Your task to perform on an android device: toggle notifications settings in the gmail app Image 0: 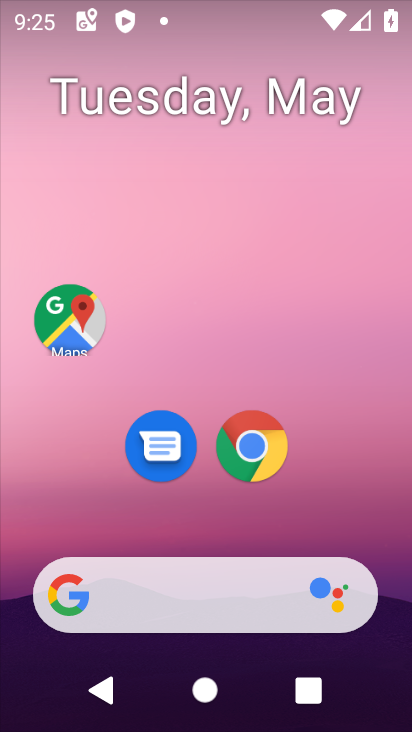
Step 0: drag from (227, 607) to (221, 204)
Your task to perform on an android device: toggle notifications settings in the gmail app Image 1: 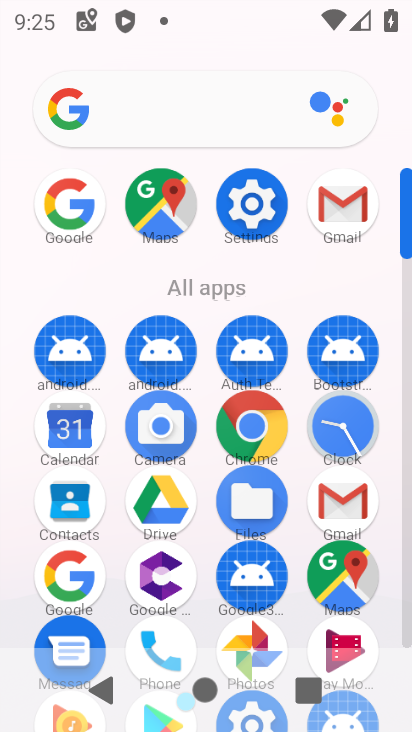
Step 1: click (339, 202)
Your task to perform on an android device: toggle notifications settings in the gmail app Image 2: 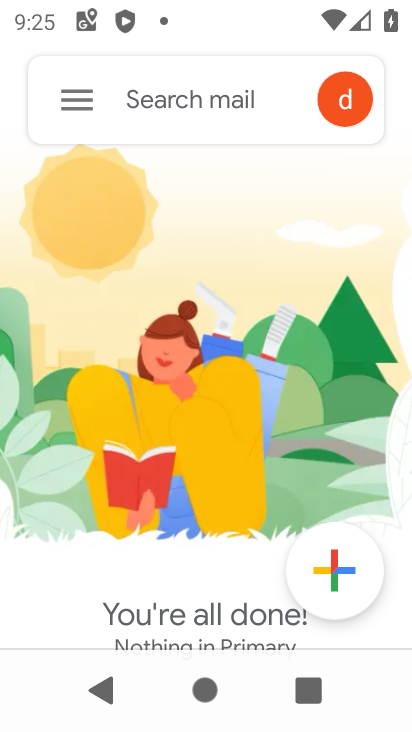
Step 2: click (68, 97)
Your task to perform on an android device: toggle notifications settings in the gmail app Image 3: 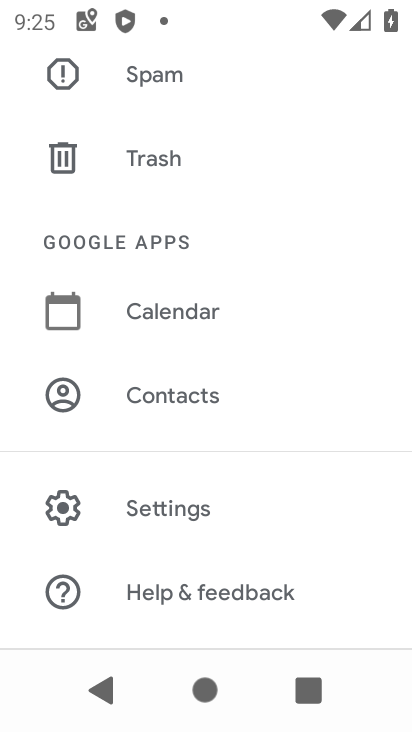
Step 3: click (165, 500)
Your task to perform on an android device: toggle notifications settings in the gmail app Image 4: 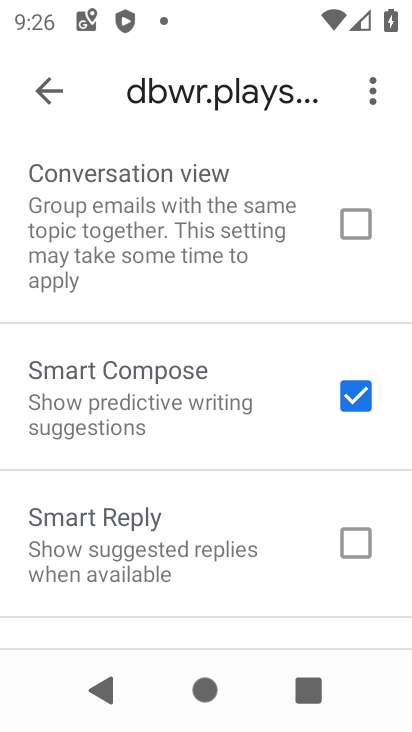
Step 4: drag from (157, 516) to (141, 133)
Your task to perform on an android device: toggle notifications settings in the gmail app Image 5: 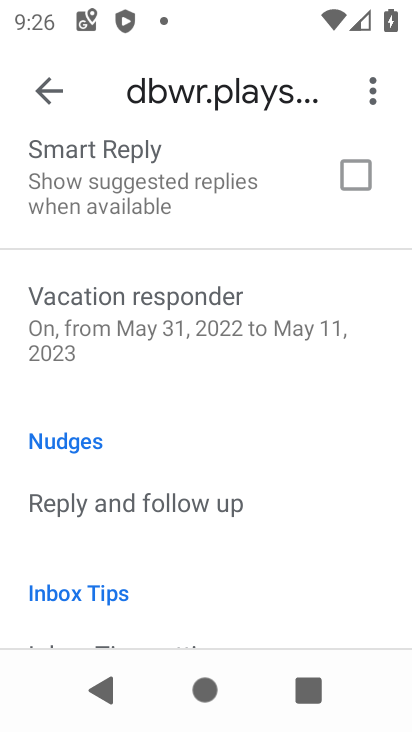
Step 5: drag from (178, 419) to (157, 52)
Your task to perform on an android device: toggle notifications settings in the gmail app Image 6: 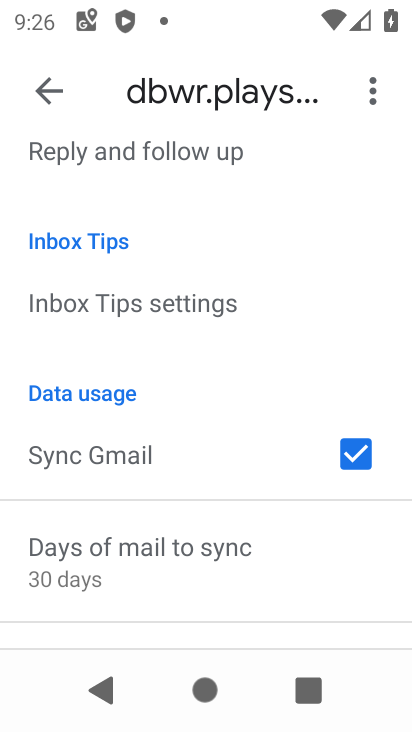
Step 6: drag from (137, 214) to (203, 682)
Your task to perform on an android device: toggle notifications settings in the gmail app Image 7: 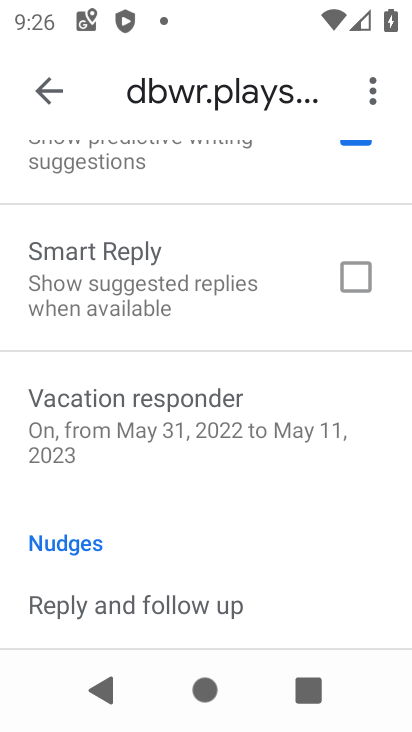
Step 7: drag from (181, 333) to (196, 727)
Your task to perform on an android device: toggle notifications settings in the gmail app Image 8: 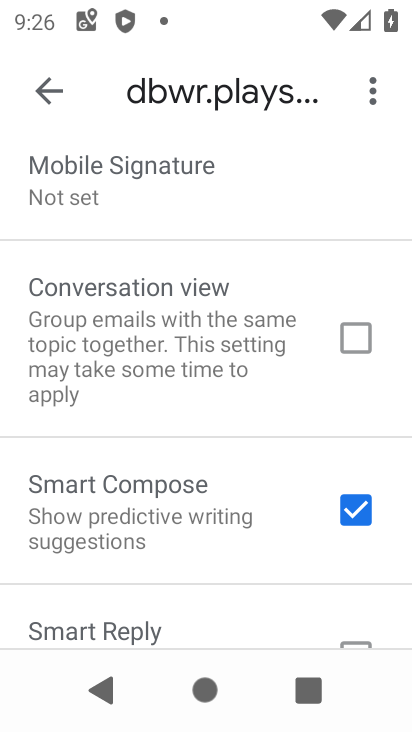
Step 8: drag from (172, 384) to (170, 707)
Your task to perform on an android device: toggle notifications settings in the gmail app Image 9: 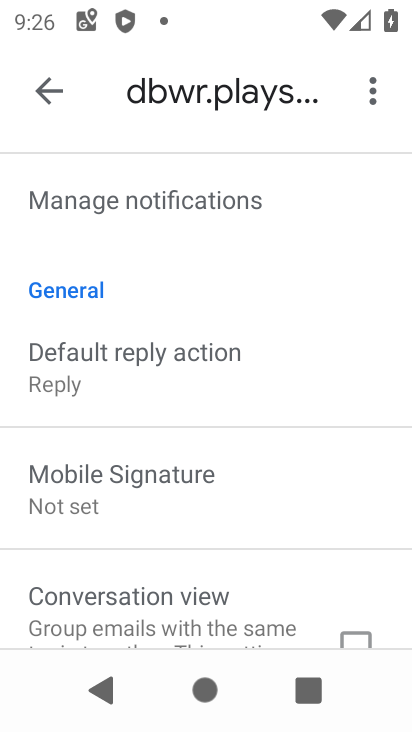
Step 9: click (118, 195)
Your task to perform on an android device: toggle notifications settings in the gmail app Image 10: 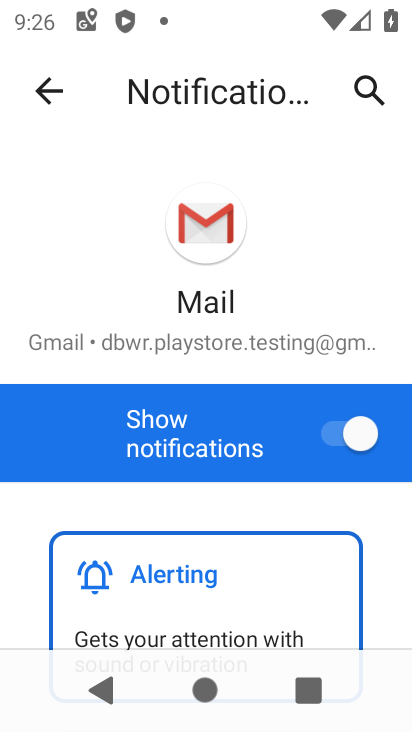
Step 10: click (335, 444)
Your task to perform on an android device: toggle notifications settings in the gmail app Image 11: 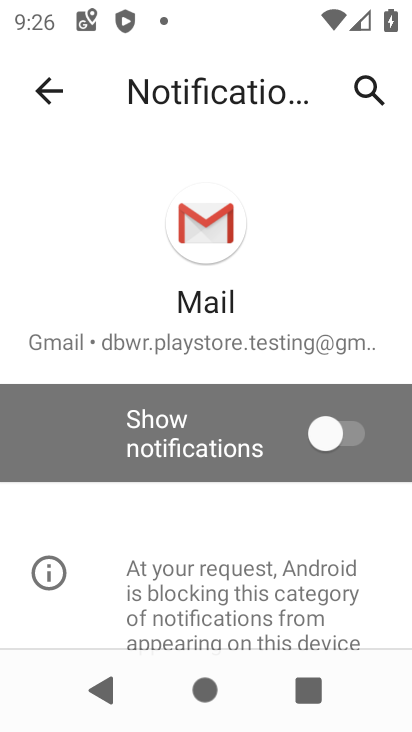
Step 11: task complete